Your task to perform on an android device: turn on the 12-hour format for clock Image 0: 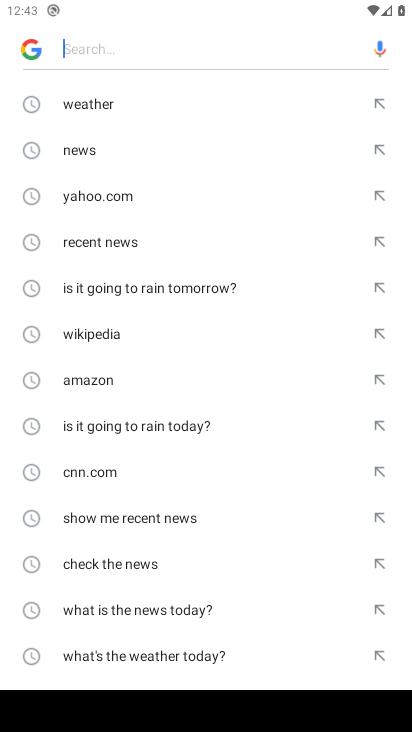
Step 0: press home button
Your task to perform on an android device: turn on the 12-hour format for clock Image 1: 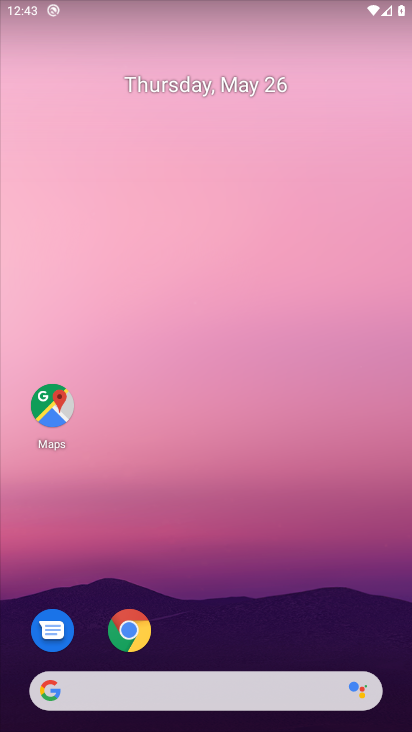
Step 1: drag from (222, 646) to (219, 126)
Your task to perform on an android device: turn on the 12-hour format for clock Image 2: 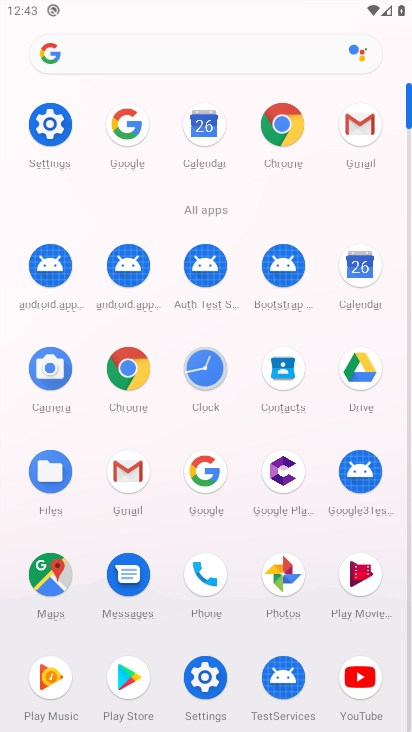
Step 2: click (202, 364)
Your task to perform on an android device: turn on the 12-hour format for clock Image 3: 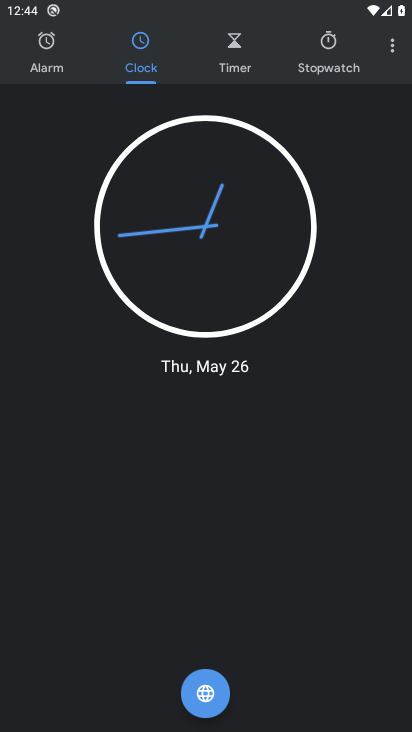
Step 3: click (382, 51)
Your task to perform on an android device: turn on the 12-hour format for clock Image 4: 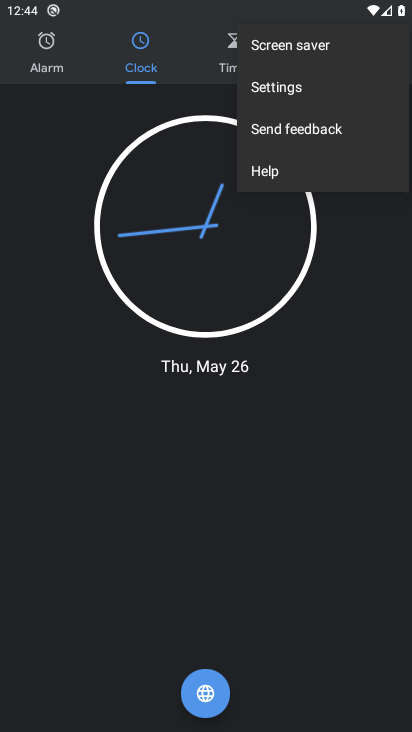
Step 4: click (333, 90)
Your task to perform on an android device: turn on the 12-hour format for clock Image 5: 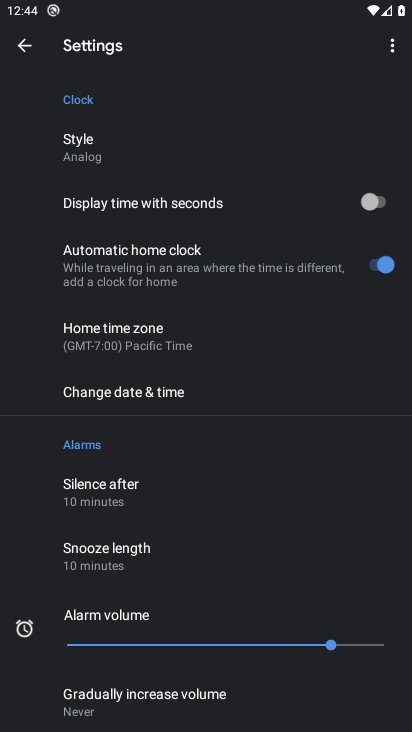
Step 5: click (197, 399)
Your task to perform on an android device: turn on the 12-hour format for clock Image 6: 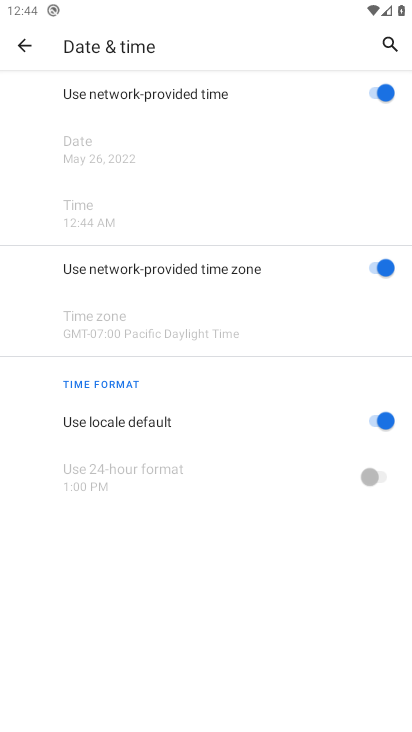
Step 6: task complete